Your task to perform on an android device: Go to eBay Image 0: 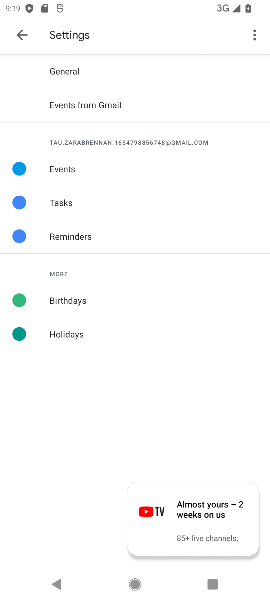
Step 0: press home button
Your task to perform on an android device: Go to eBay Image 1: 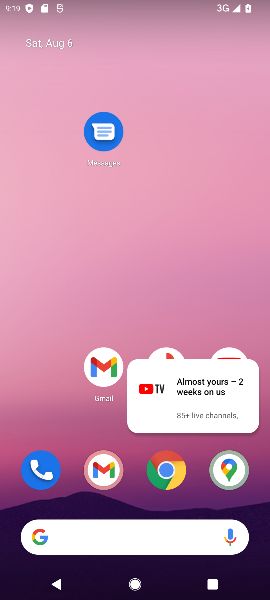
Step 1: click (178, 463)
Your task to perform on an android device: Go to eBay Image 2: 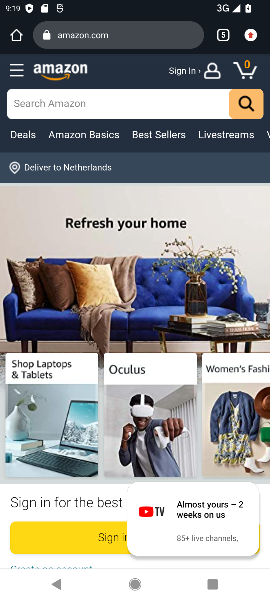
Step 2: click (186, 35)
Your task to perform on an android device: Go to eBay Image 3: 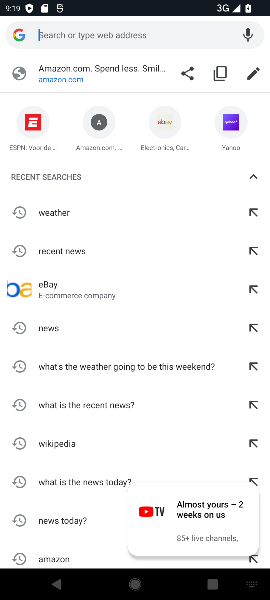
Step 3: click (86, 288)
Your task to perform on an android device: Go to eBay Image 4: 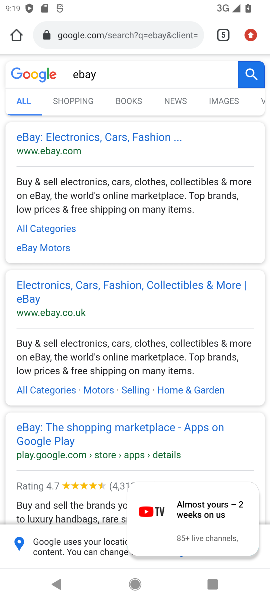
Step 4: task complete